Your task to perform on an android device: delete location history Image 0: 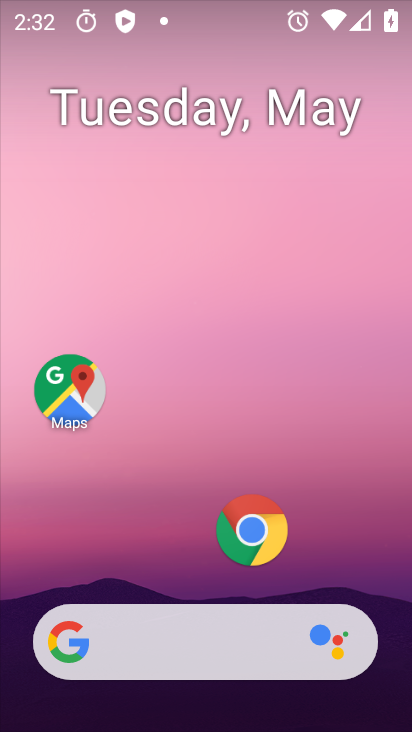
Step 0: drag from (180, 593) to (196, 5)
Your task to perform on an android device: delete location history Image 1: 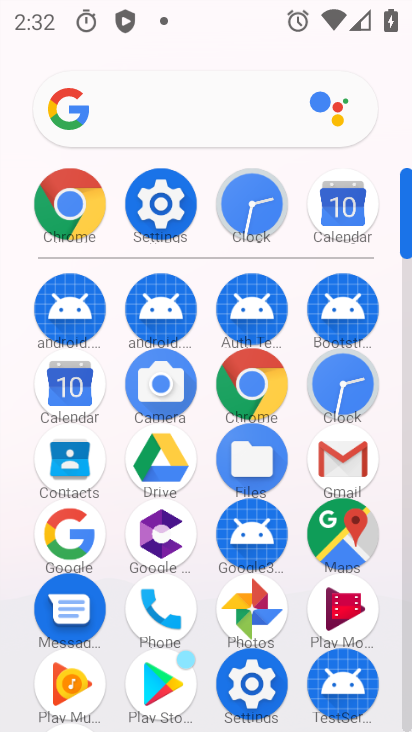
Step 1: click (321, 532)
Your task to perform on an android device: delete location history Image 2: 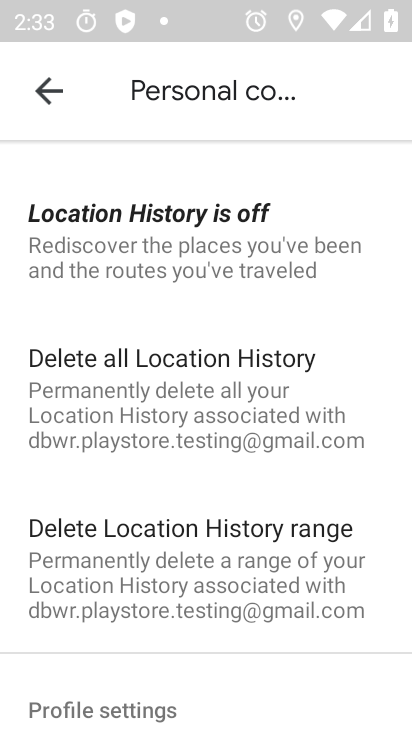
Step 2: click (266, 446)
Your task to perform on an android device: delete location history Image 3: 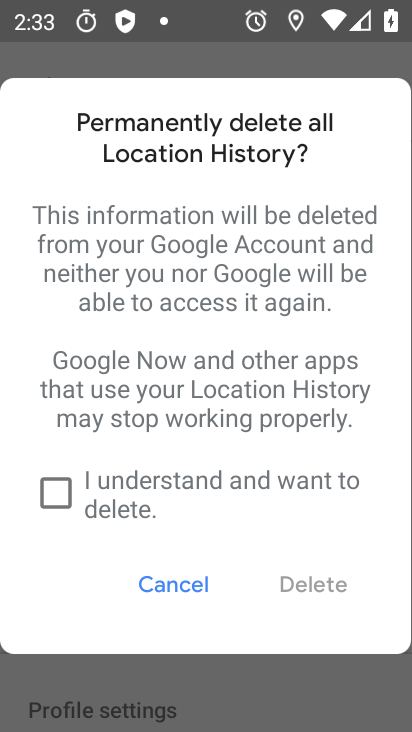
Step 3: click (64, 480)
Your task to perform on an android device: delete location history Image 4: 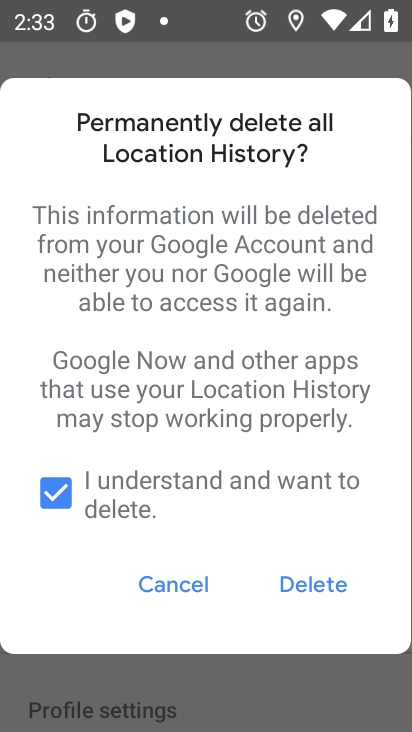
Step 4: click (322, 584)
Your task to perform on an android device: delete location history Image 5: 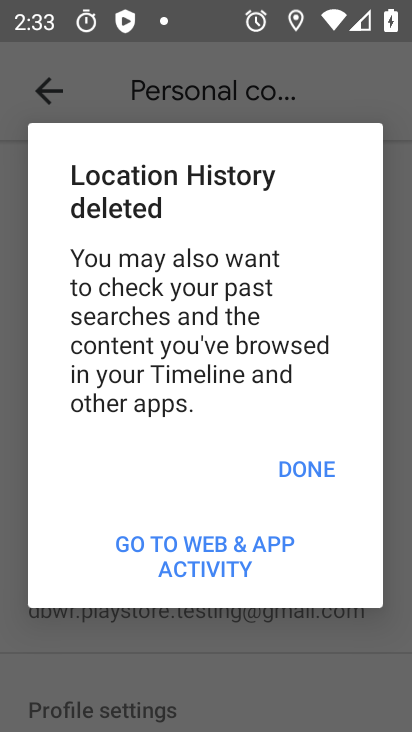
Step 5: click (294, 468)
Your task to perform on an android device: delete location history Image 6: 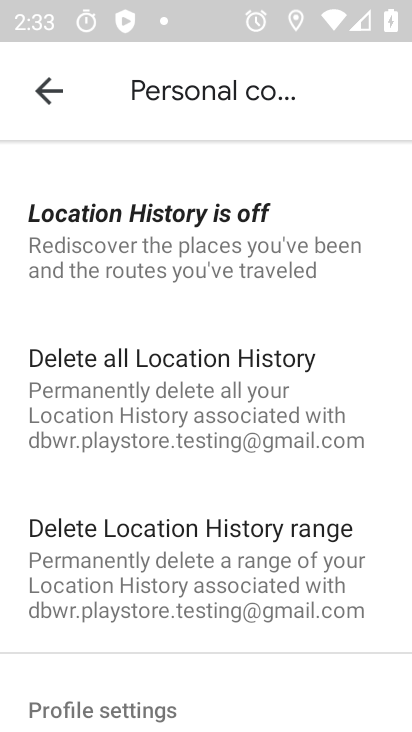
Step 6: task complete